Your task to perform on an android device: turn notification dots on Image 0: 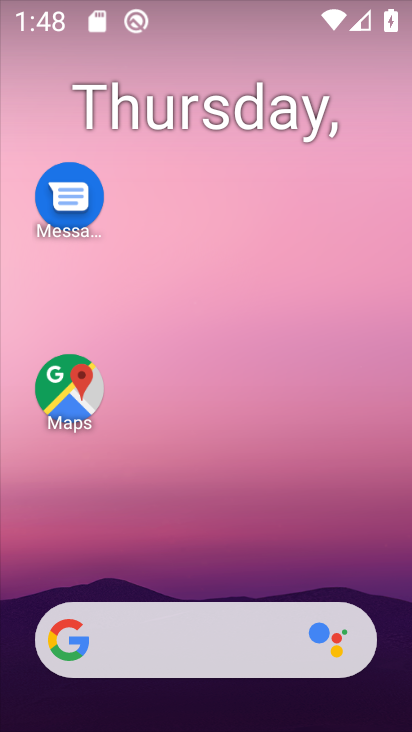
Step 0: drag from (126, 576) to (205, 171)
Your task to perform on an android device: turn notification dots on Image 1: 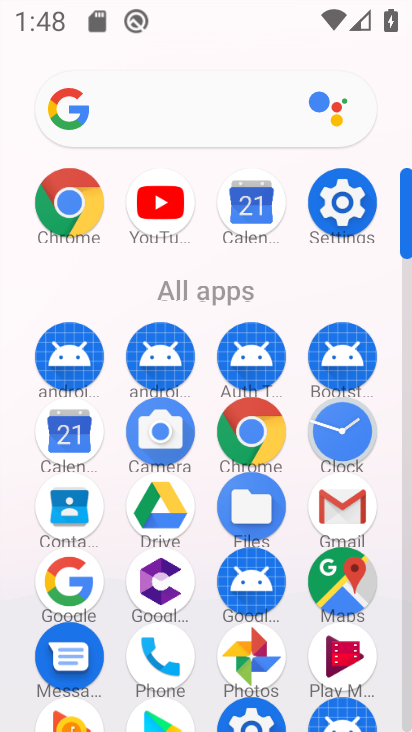
Step 1: click (347, 195)
Your task to perform on an android device: turn notification dots on Image 2: 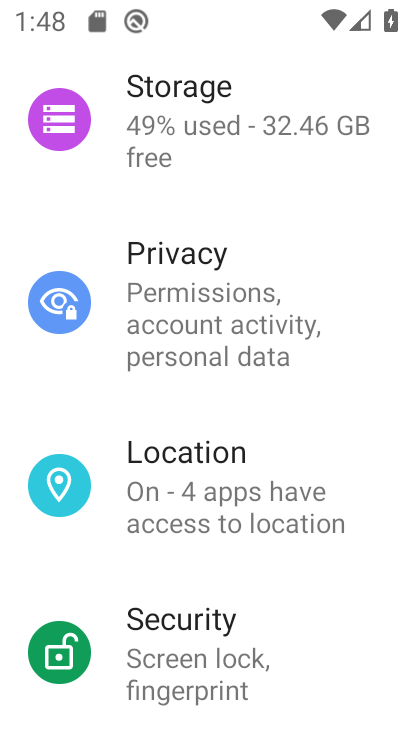
Step 2: drag from (188, 576) to (272, 194)
Your task to perform on an android device: turn notification dots on Image 3: 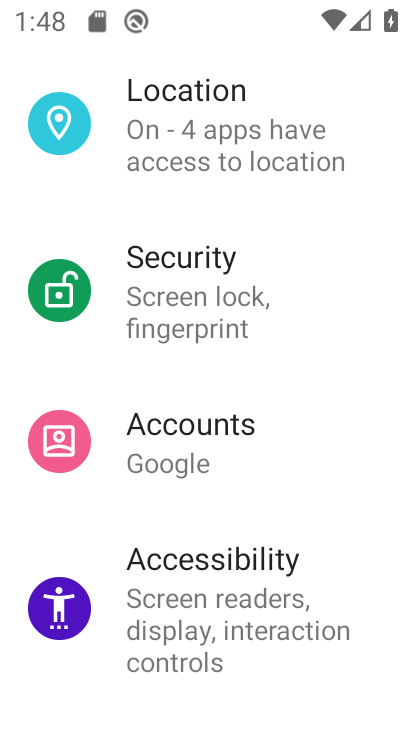
Step 3: drag from (256, 259) to (247, 469)
Your task to perform on an android device: turn notification dots on Image 4: 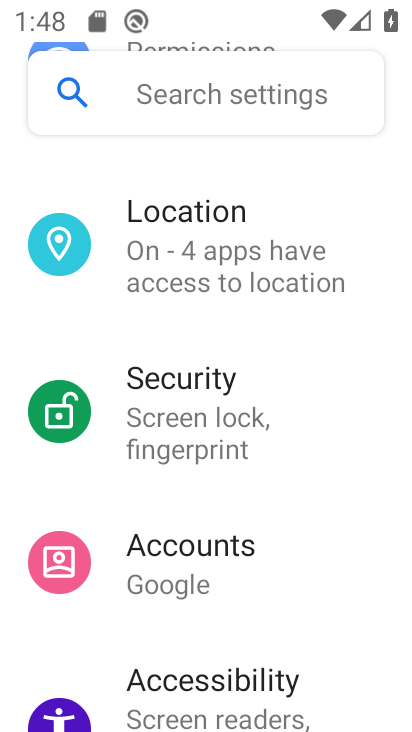
Step 4: drag from (229, 276) to (233, 573)
Your task to perform on an android device: turn notification dots on Image 5: 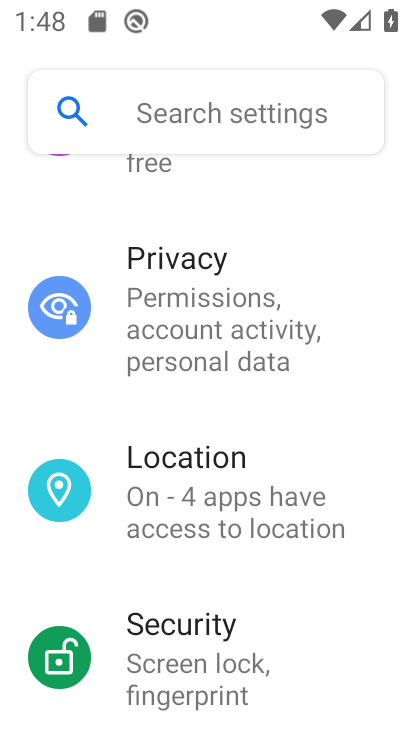
Step 5: drag from (200, 284) to (198, 539)
Your task to perform on an android device: turn notification dots on Image 6: 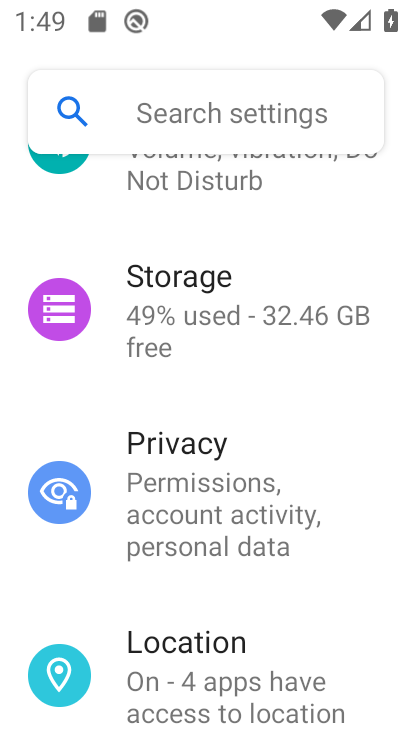
Step 6: drag from (197, 310) to (196, 635)
Your task to perform on an android device: turn notification dots on Image 7: 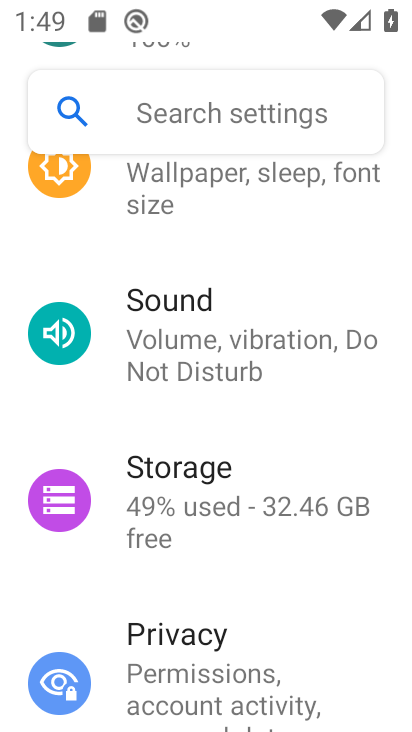
Step 7: drag from (228, 264) to (238, 538)
Your task to perform on an android device: turn notification dots on Image 8: 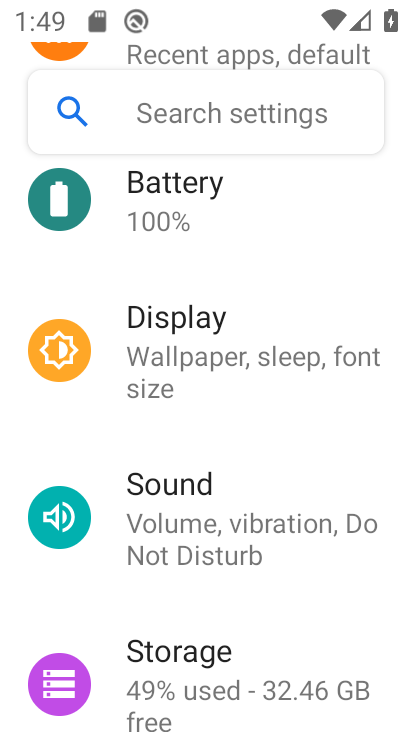
Step 8: drag from (269, 290) to (291, 514)
Your task to perform on an android device: turn notification dots on Image 9: 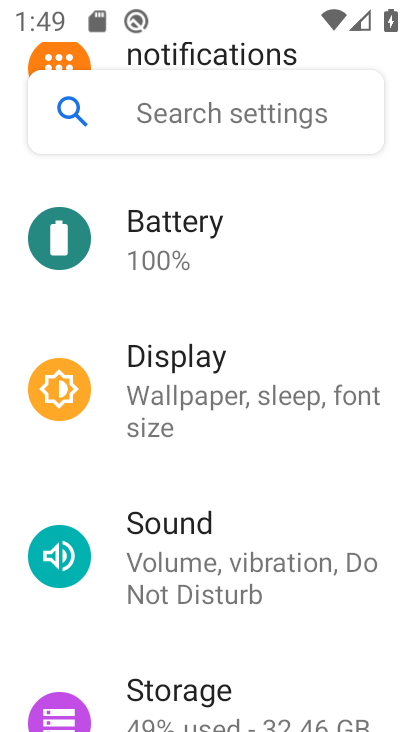
Step 9: drag from (245, 220) to (212, 490)
Your task to perform on an android device: turn notification dots on Image 10: 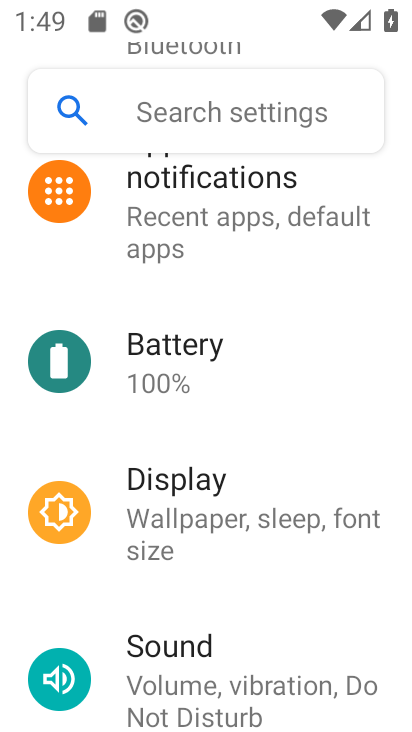
Step 10: click (179, 214)
Your task to perform on an android device: turn notification dots on Image 11: 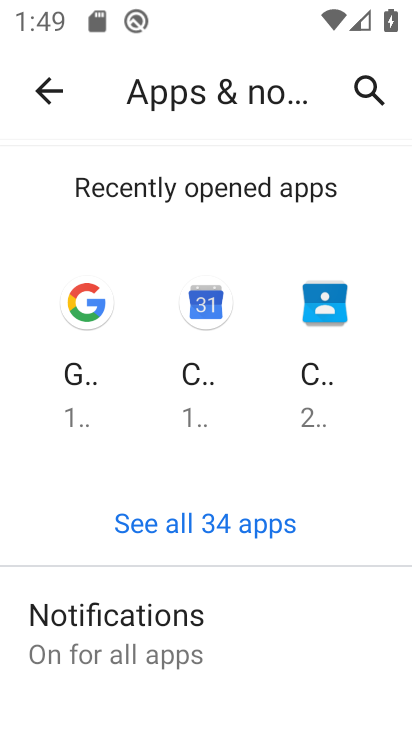
Step 11: drag from (221, 559) to (241, 237)
Your task to perform on an android device: turn notification dots on Image 12: 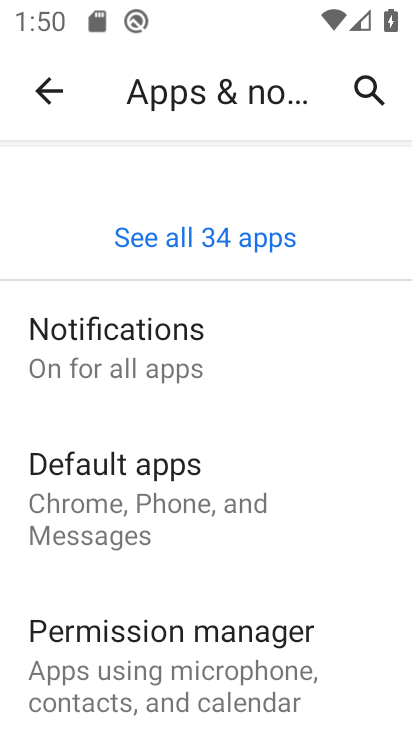
Step 12: drag from (170, 587) to (165, 261)
Your task to perform on an android device: turn notification dots on Image 13: 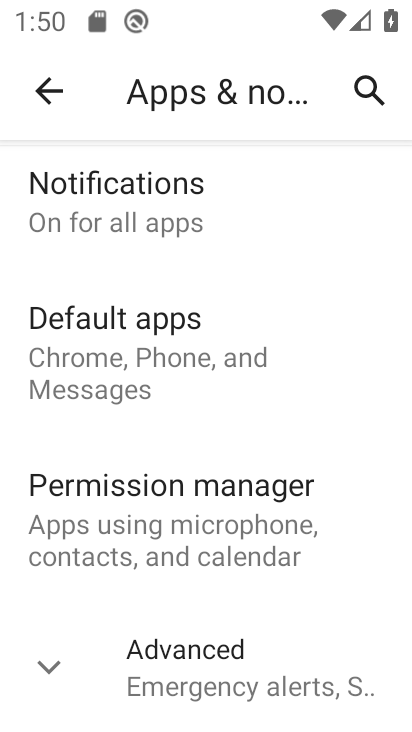
Step 13: click (115, 220)
Your task to perform on an android device: turn notification dots on Image 14: 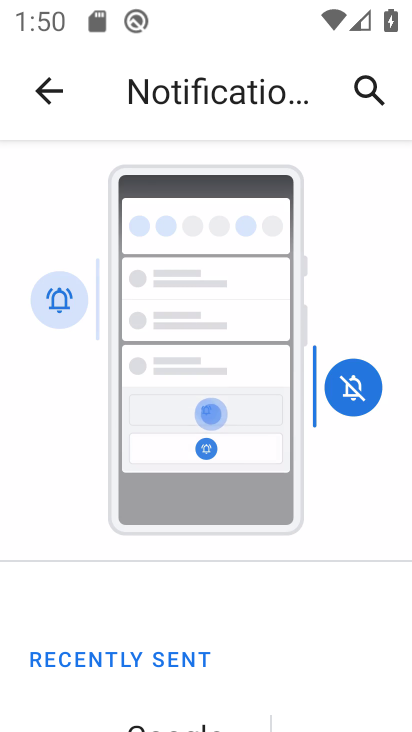
Step 14: drag from (189, 687) to (232, 242)
Your task to perform on an android device: turn notification dots on Image 15: 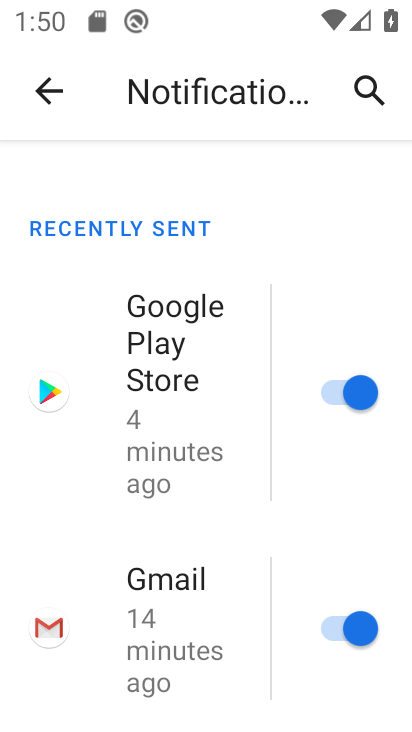
Step 15: drag from (255, 669) to (312, 267)
Your task to perform on an android device: turn notification dots on Image 16: 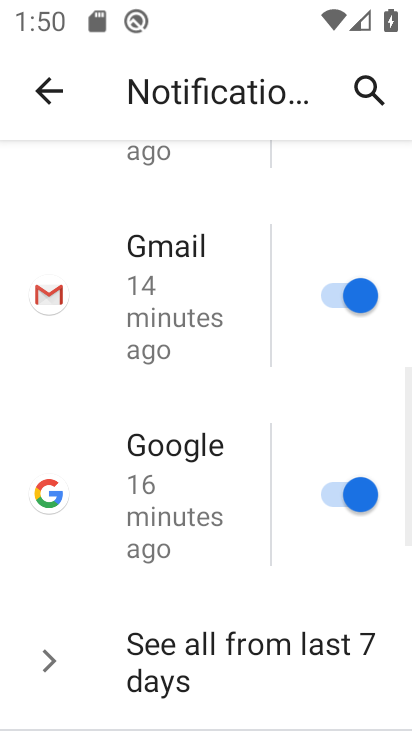
Step 16: drag from (237, 685) to (291, 286)
Your task to perform on an android device: turn notification dots on Image 17: 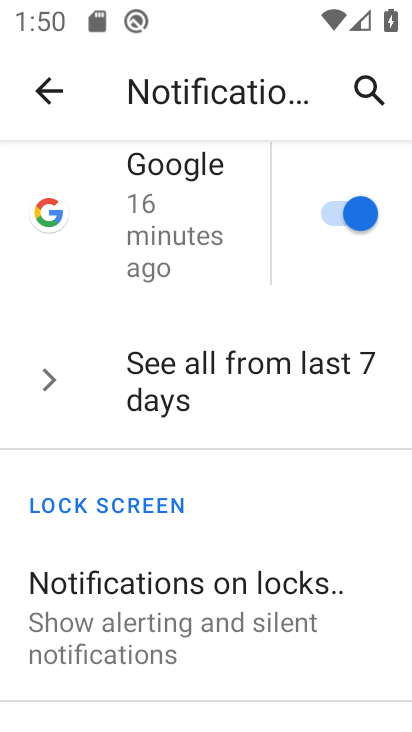
Step 17: drag from (240, 683) to (303, 380)
Your task to perform on an android device: turn notification dots on Image 18: 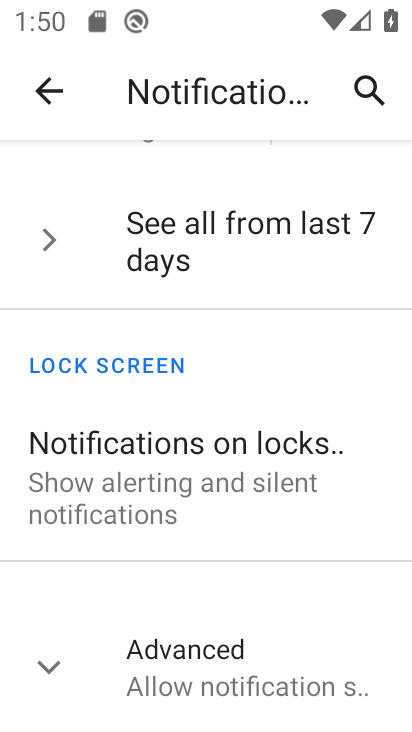
Step 18: click (48, 663)
Your task to perform on an android device: turn notification dots on Image 19: 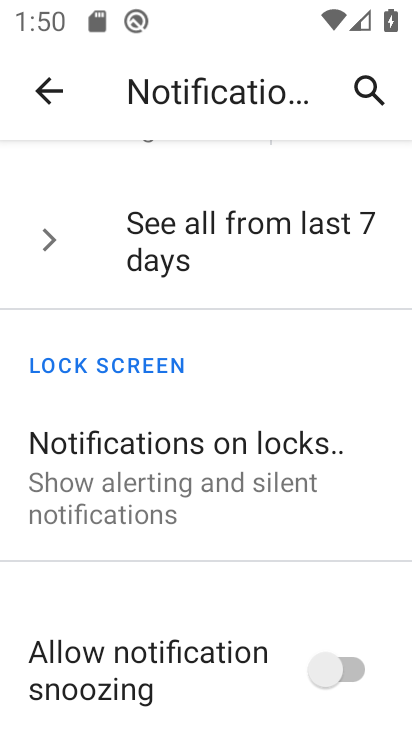
Step 19: task complete